Your task to perform on an android device: Show me productivity apps on the Play Store Image 0: 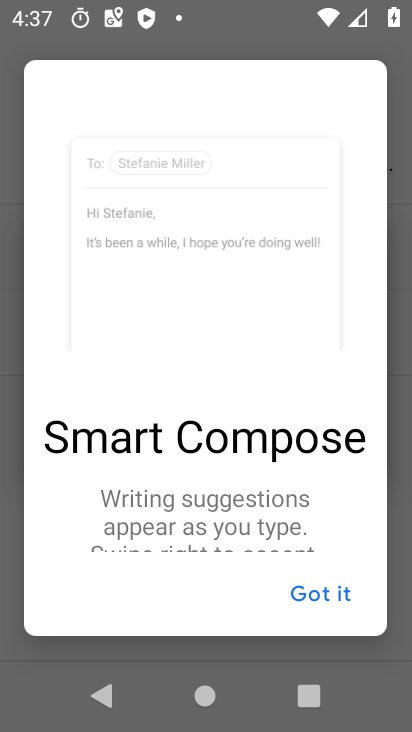
Step 0: press home button
Your task to perform on an android device: Show me productivity apps on the Play Store Image 1: 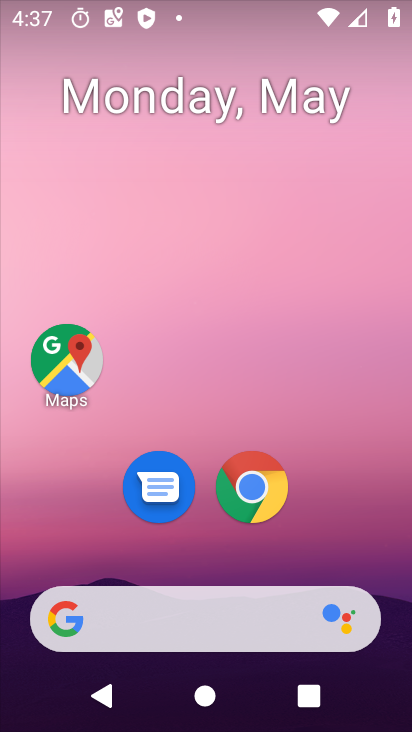
Step 1: drag from (206, 521) to (192, 294)
Your task to perform on an android device: Show me productivity apps on the Play Store Image 2: 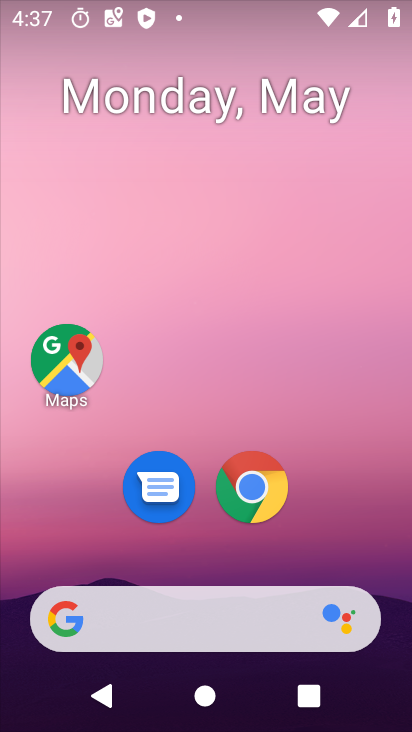
Step 2: drag from (187, 586) to (203, 247)
Your task to perform on an android device: Show me productivity apps on the Play Store Image 3: 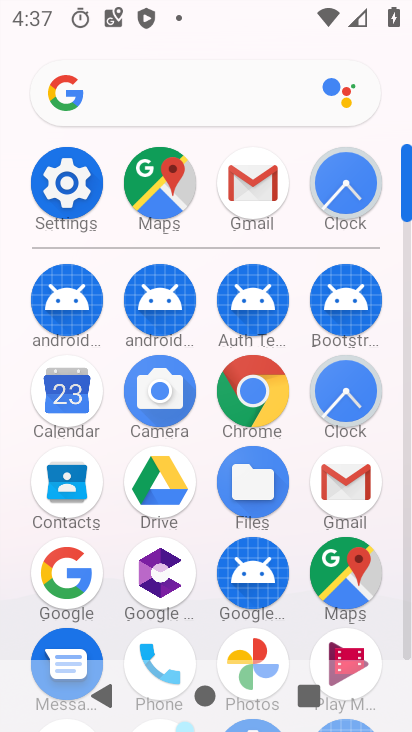
Step 3: drag from (191, 570) to (188, 266)
Your task to perform on an android device: Show me productivity apps on the Play Store Image 4: 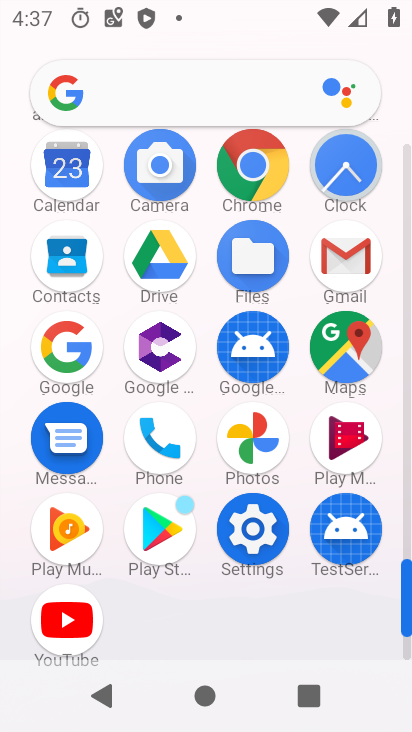
Step 4: click (155, 547)
Your task to perform on an android device: Show me productivity apps on the Play Store Image 5: 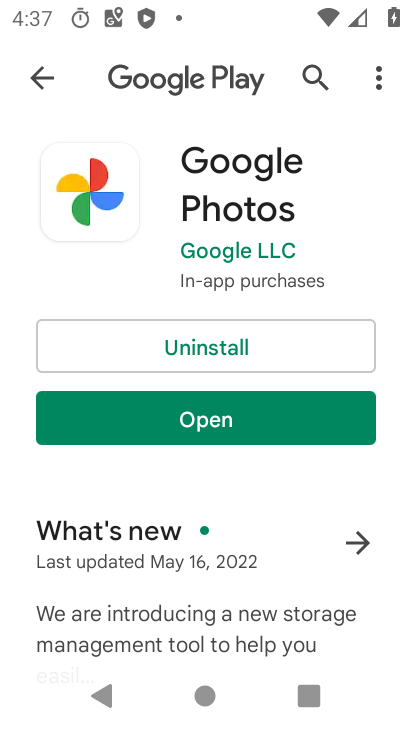
Step 5: click (50, 90)
Your task to perform on an android device: Show me productivity apps on the Play Store Image 6: 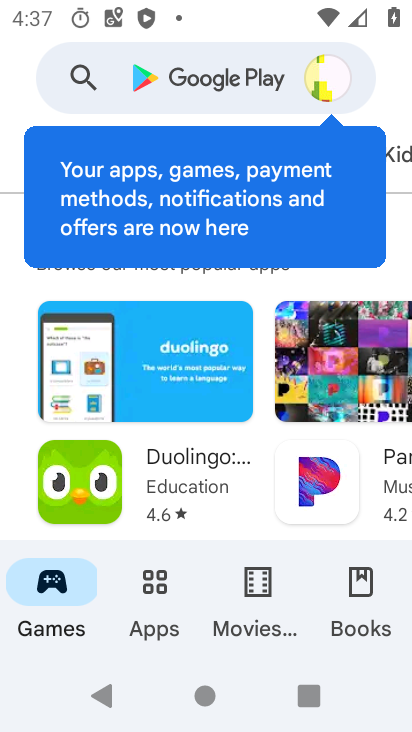
Step 6: click (160, 597)
Your task to perform on an android device: Show me productivity apps on the Play Store Image 7: 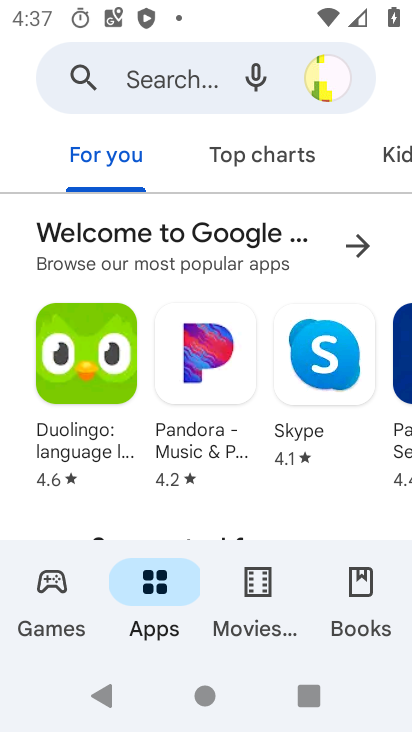
Step 7: task complete